Your task to perform on an android device: uninstall "Google Drive" Image 0: 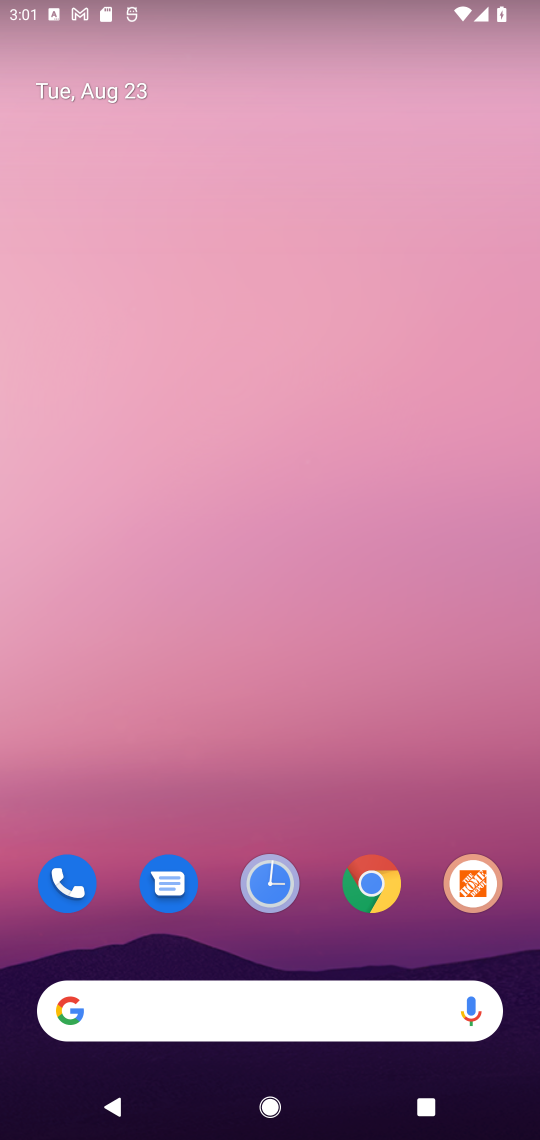
Step 0: drag from (173, 966) to (126, 290)
Your task to perform on an android device: uninstall "Google Drive" Image 1: 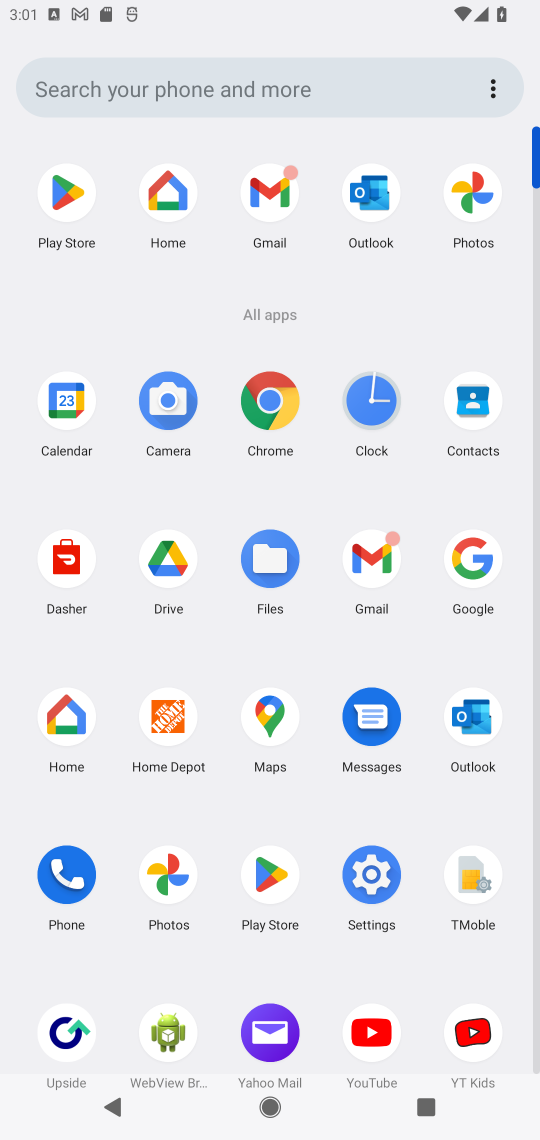
Step 1: click (52, 205)
Your task to perform on an android device: uninstall "Google Drive" Image 2: 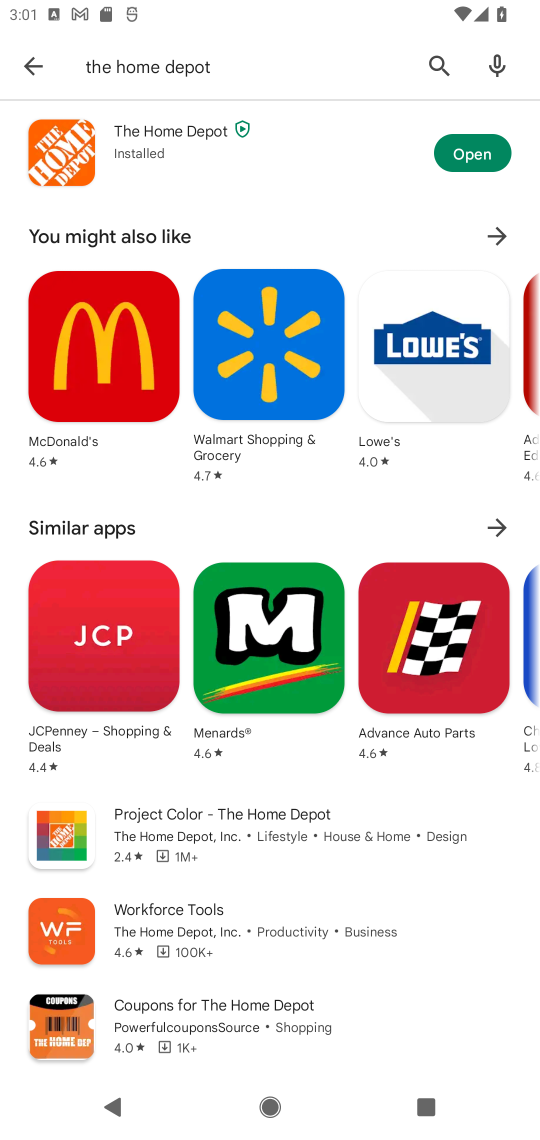
Step 2: click (434, 62)
Your task to perform on an android device: uninstall "Google Drive" Image 3: 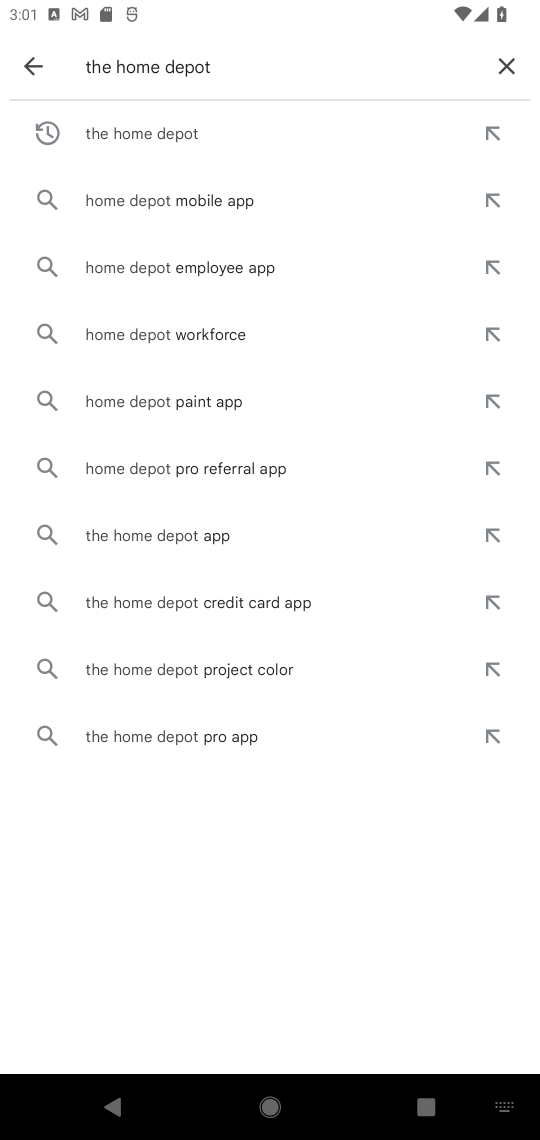
Step 3: click (513, 57)
Your task to perform on an android device: uninstall "Google Drive" Image 4: 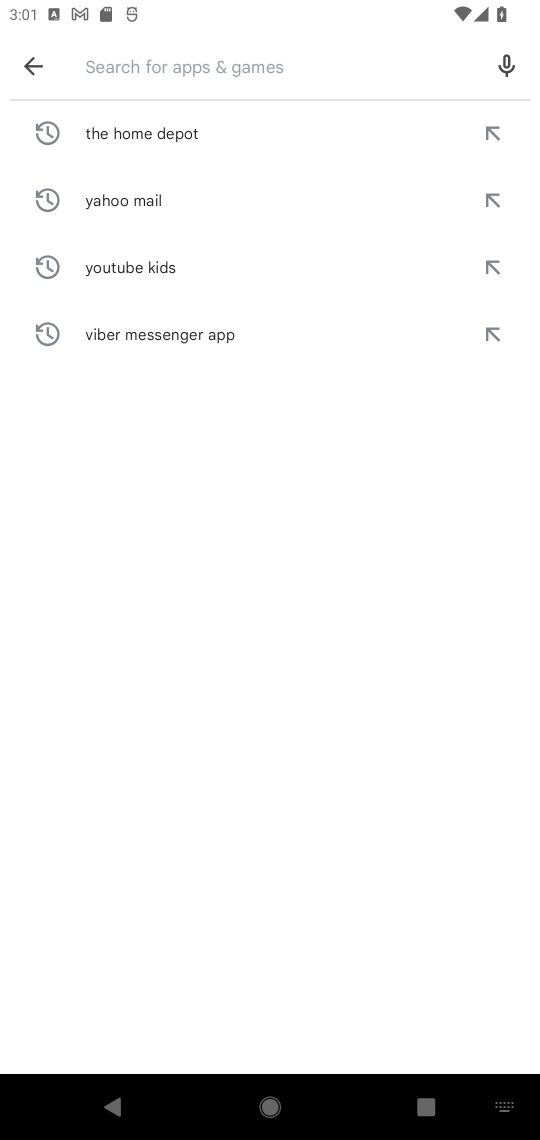
Step 4: type "Google Drive"
Your task to perform on an android device: uninstall "Google Drive" Image 5: 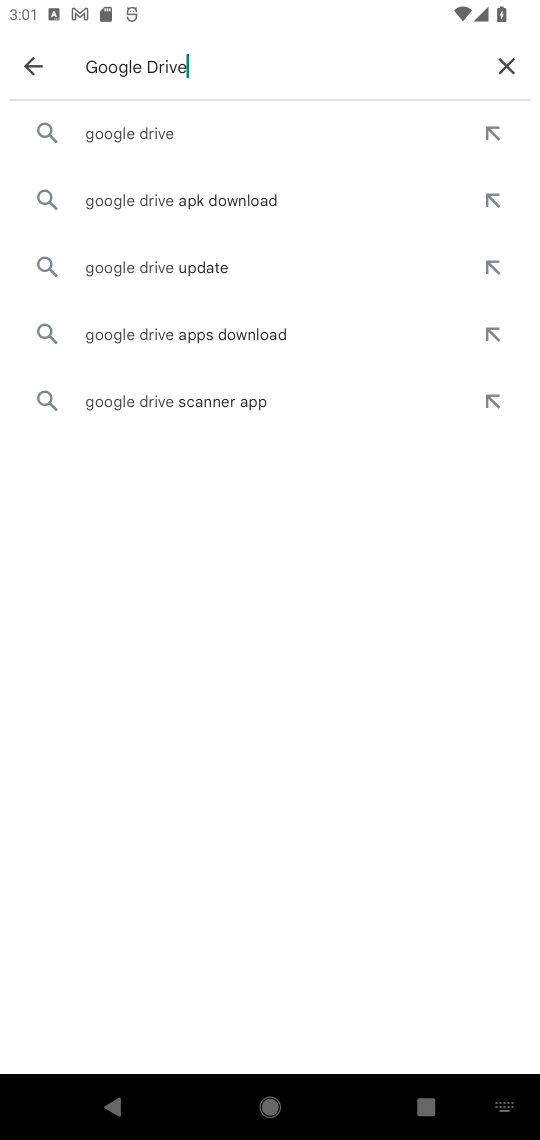
Step 5: click (115, 139)
Your task to perform on an android device: uninstall "Google Drive" Image 6: 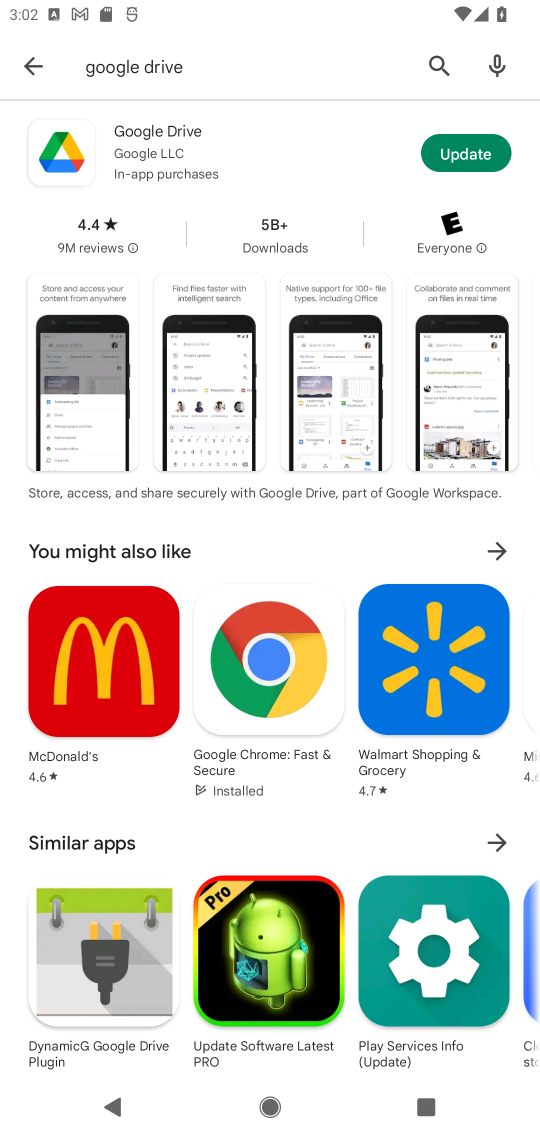
Step 6: task complete